Your task to perform on an android device: Go to Amazon Image 0: 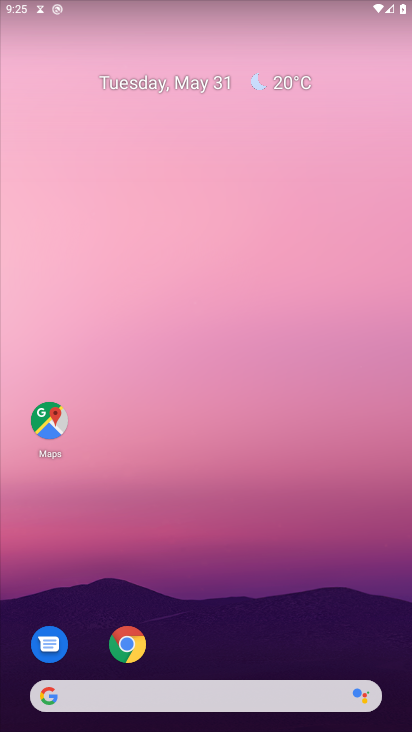
Step 0: click (139, 647)
Your task to perform on an android device: Go to Amazon Image 1: 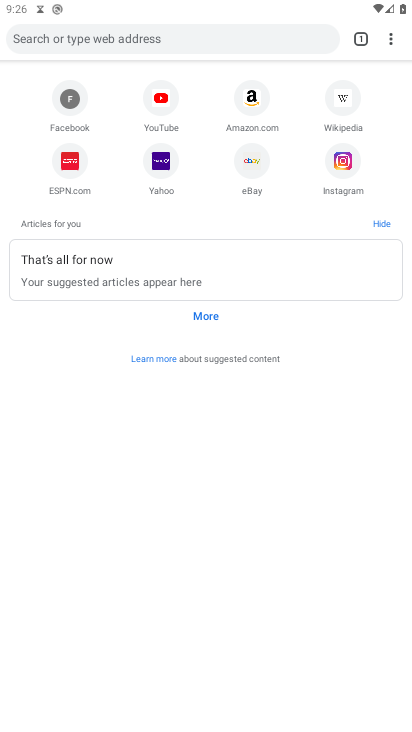
Step 1: click (254, 88)
Your task to perform on an android device: Go to Amazon Image 2: 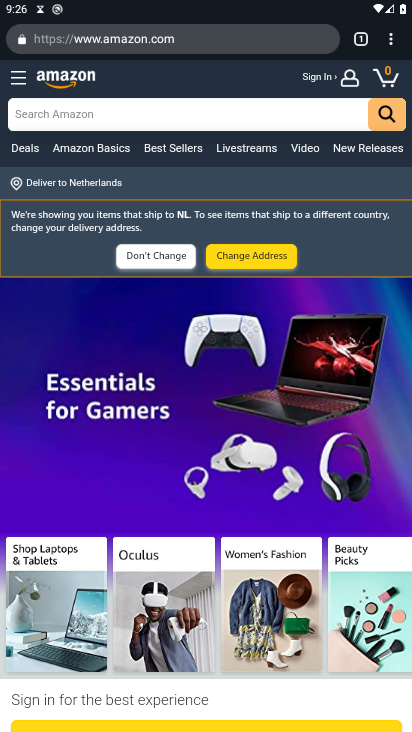
Step 2: task complete